Your task to perform on an android device: toggle show notifications on the lock screen Image 0: 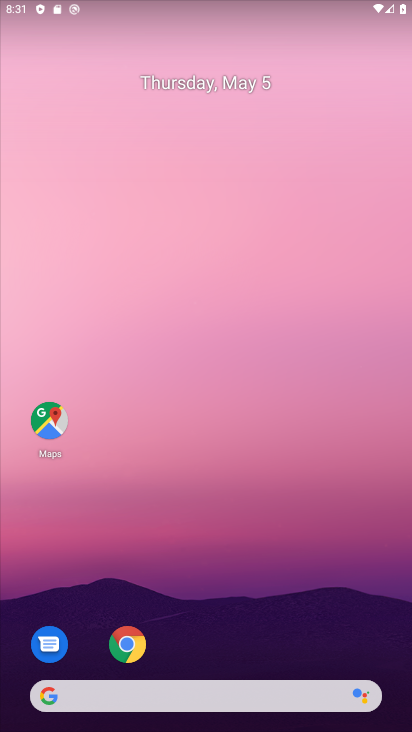
Step 0: drag from (346, 584) to (372, 58)
Your task to perform on an android device: toggle show notifications on the lock screen Image 1: 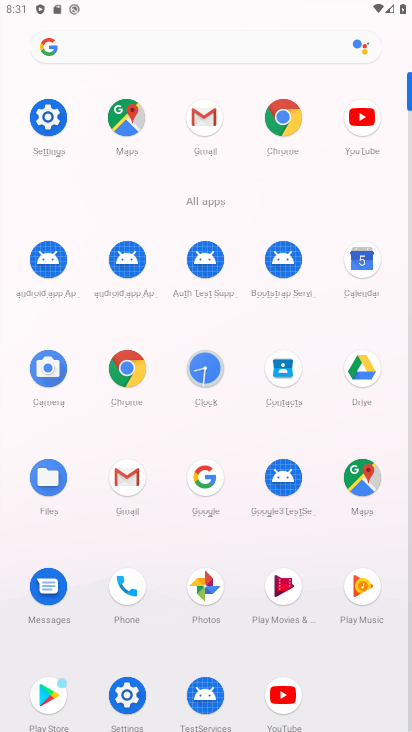
Step 1: click (35, 112)
Your task to perform on an android device: toggle show notifications on the lock screen Image 2: 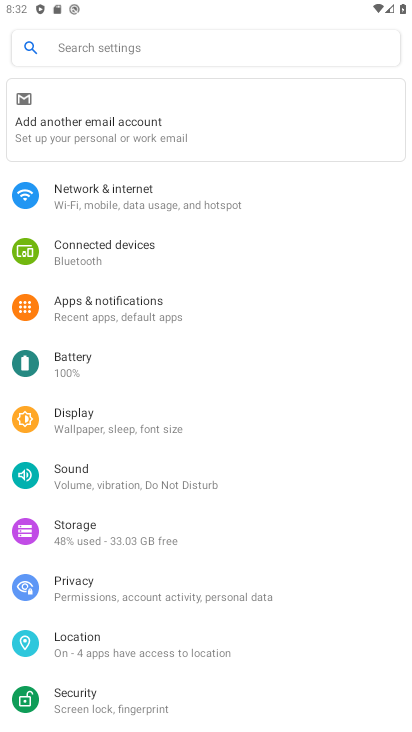
Step 2: click (128, 303)
Your task to perform on an android device: toggle show notifications on the lock screen Image 3: 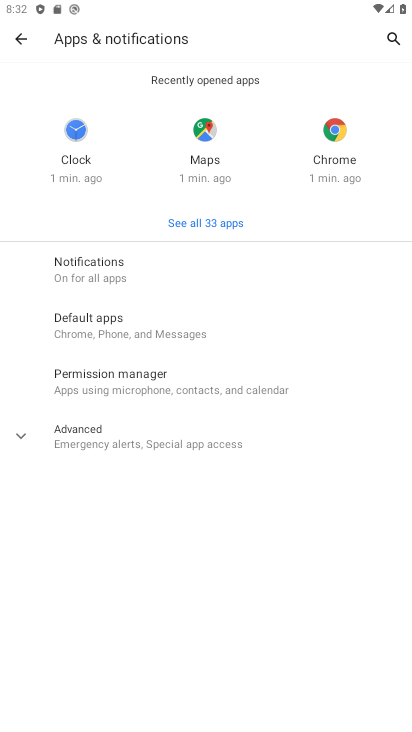
Step 3: click (97, 282)
Your task to perform on an android device: toggle show notifications on the lock screen Image 4: 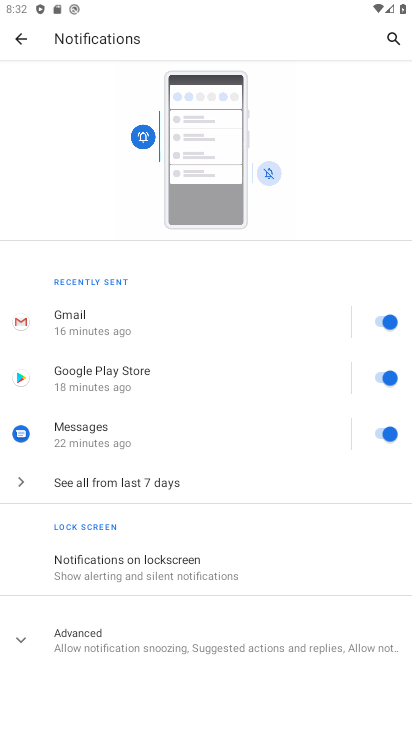
Step 4: click (128, 570)
Your task to perform on an android device: toggle show notifications on the lock screen Image 5: 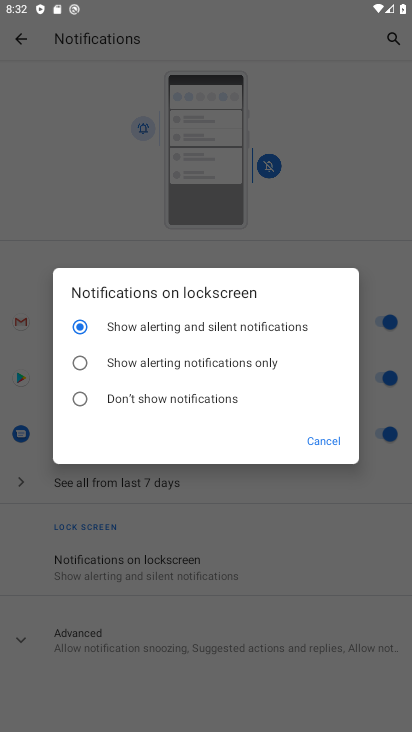
Step 5: click (85, 357)
Your task to perform on an android device: toggle show notifications on the lock screen Image 6: 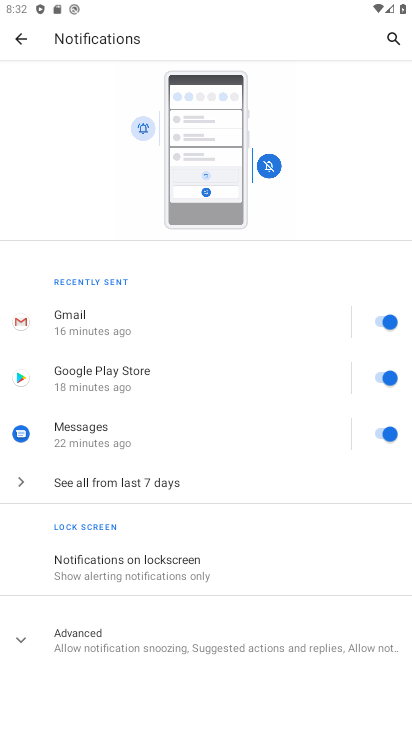
Step 6: task complete